Your task to perform on an android device: turn off wifi Image 0: 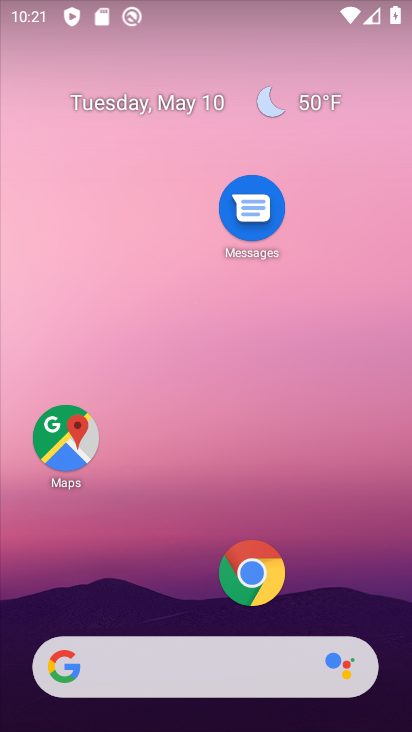
Step 0: drag from (180, 587) to (157, 91)
Your task to perform on an android device: turn off wifi Image 1: 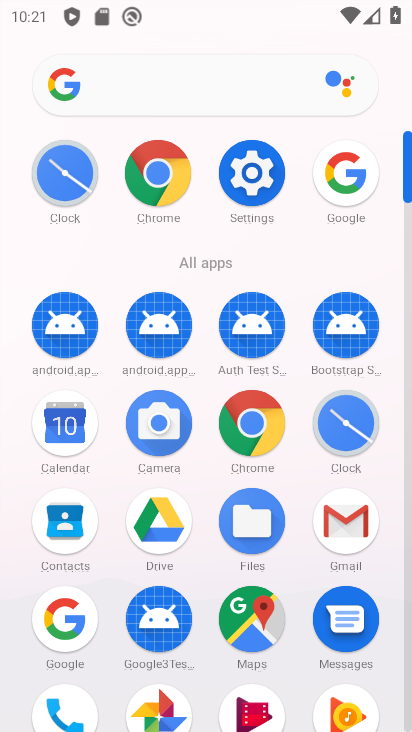
Step 1: click (256, 177)
Your task to perform on an android device: turn off wifi Image 2: 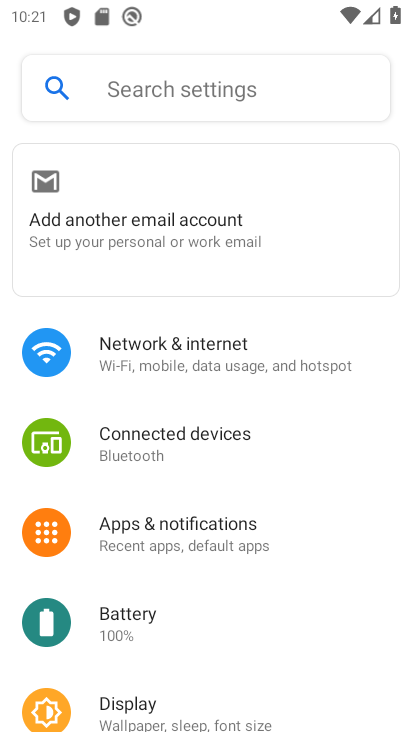
Step 2: click (197, 356)
Your task to perform on an android device: turn off wifi Image 3: 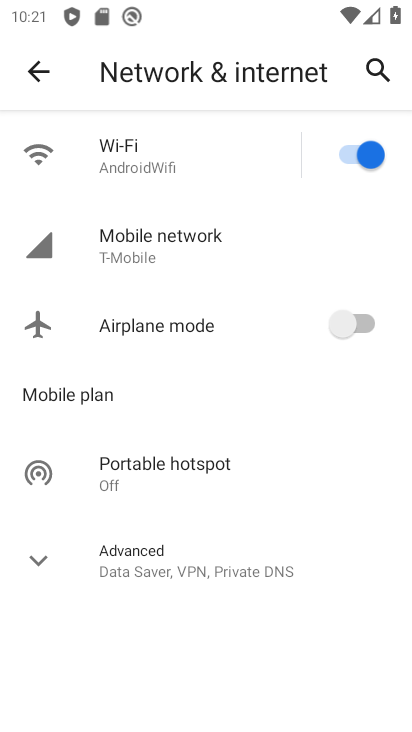
Step 3: click (361, 150)
Your task to perform on an android device: turn off wifi Image 4: 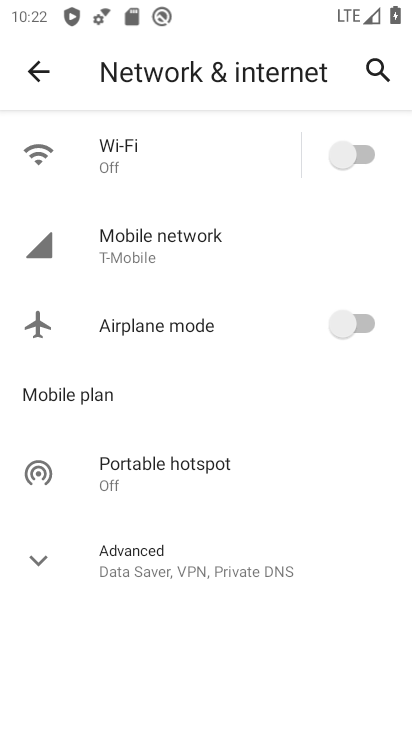
Step 4: task complete